Your task to perform on an android device: set an alarm Image 0: 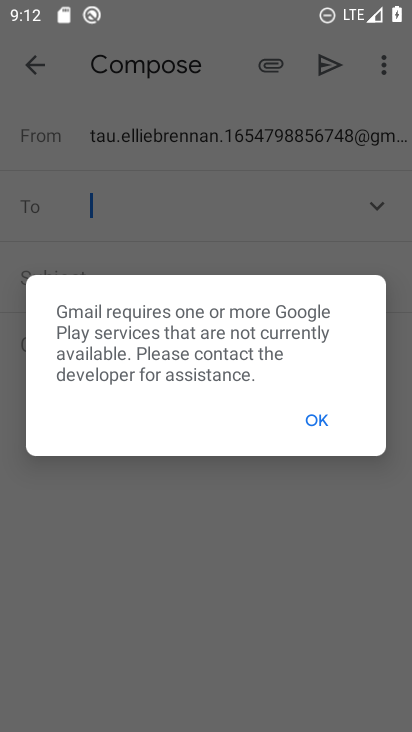
Step 0: press home button
Your task to perform on an android device: set an alarm Image 1: 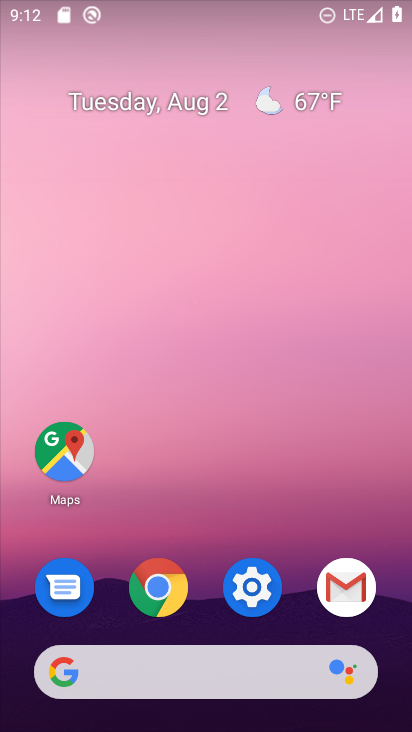
Step 1: drag from (274, 693) to (237, 330)
Your task to perform on an android device: set an alarm Image 2: 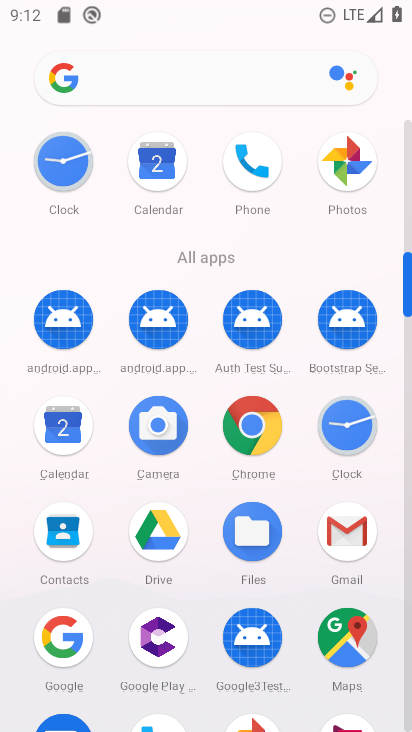
Step 2: click (331, 428)
Your task to perform on an android device: set an alarm Image 3: 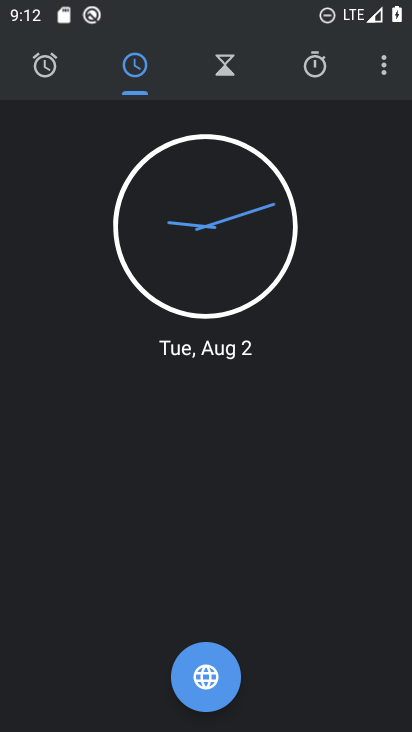
Step 3: click (50, 67)
Your task to perform on an android device: set an alarm Image 4: 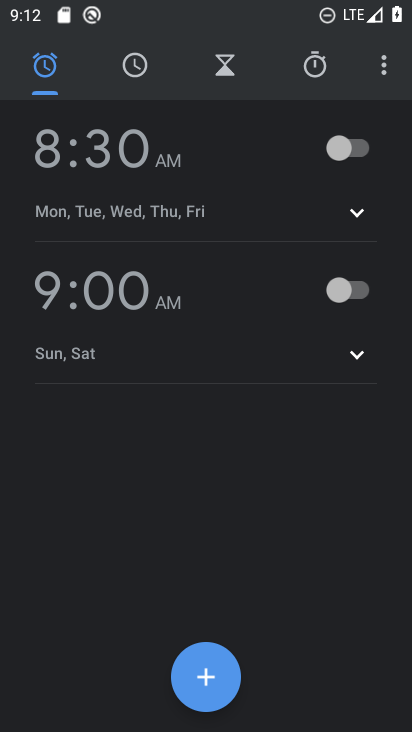
Step 4: click (357, 152)
Your task to perform on an android device: set an alarm Image 5: 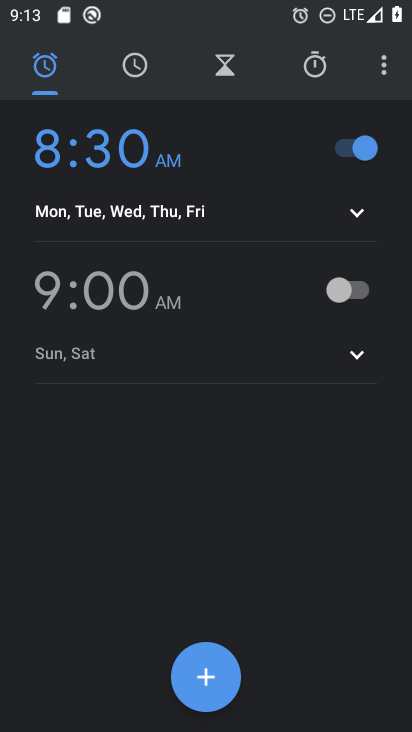
Step 5: task complete